Your task to perform on an android device: Open the stopwatch Image 0: 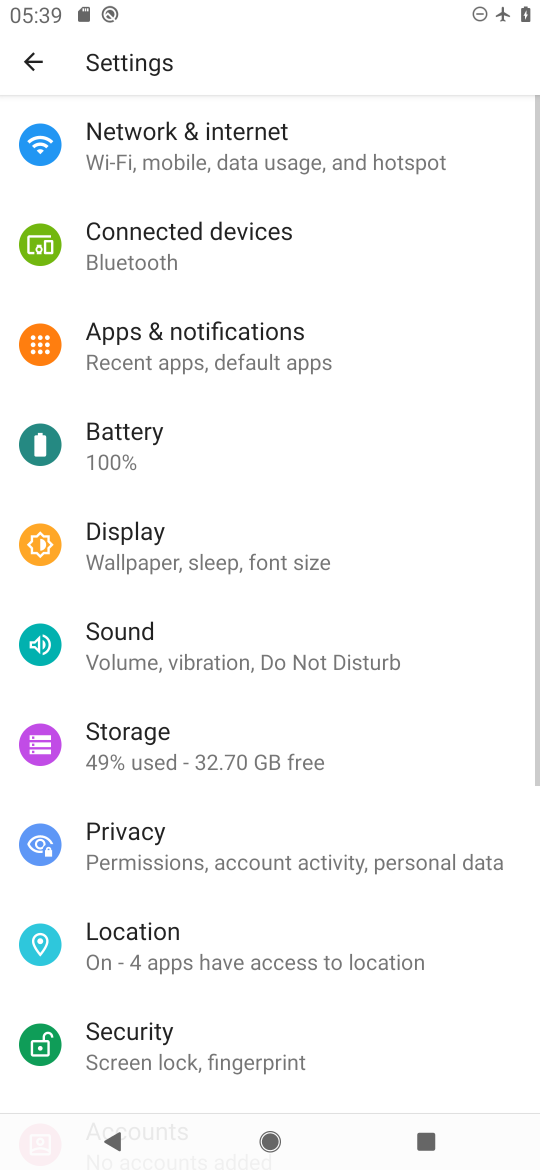
Step 0: press home button
Your task to perform on an android device: Open the stopwatch Image 1: 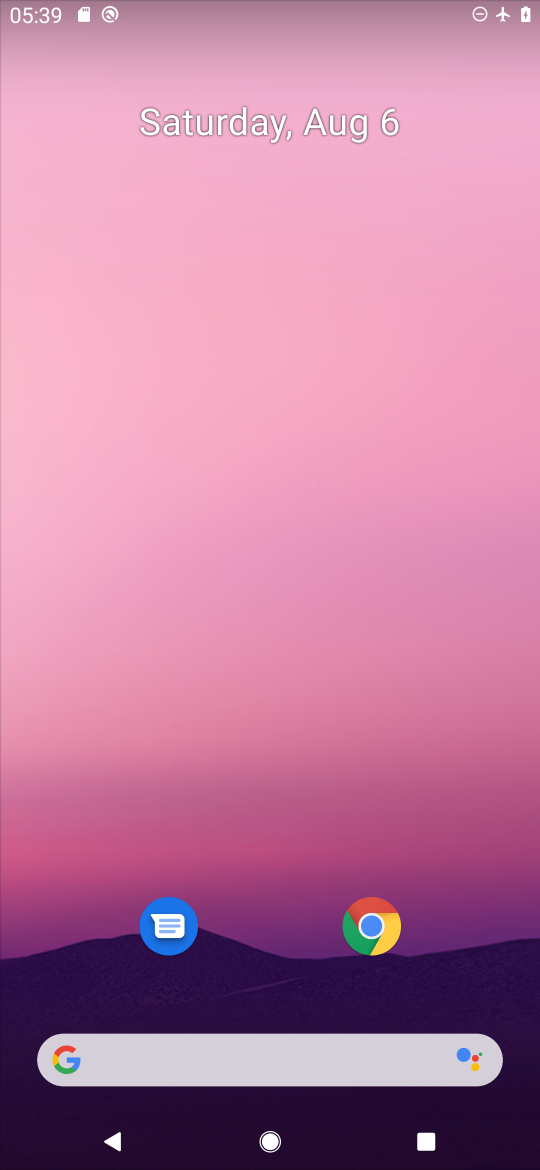
Step 1: drag from (280, 901) to (232, 228)
Your task to perform on an android device: Open the stopwatch Image 2: 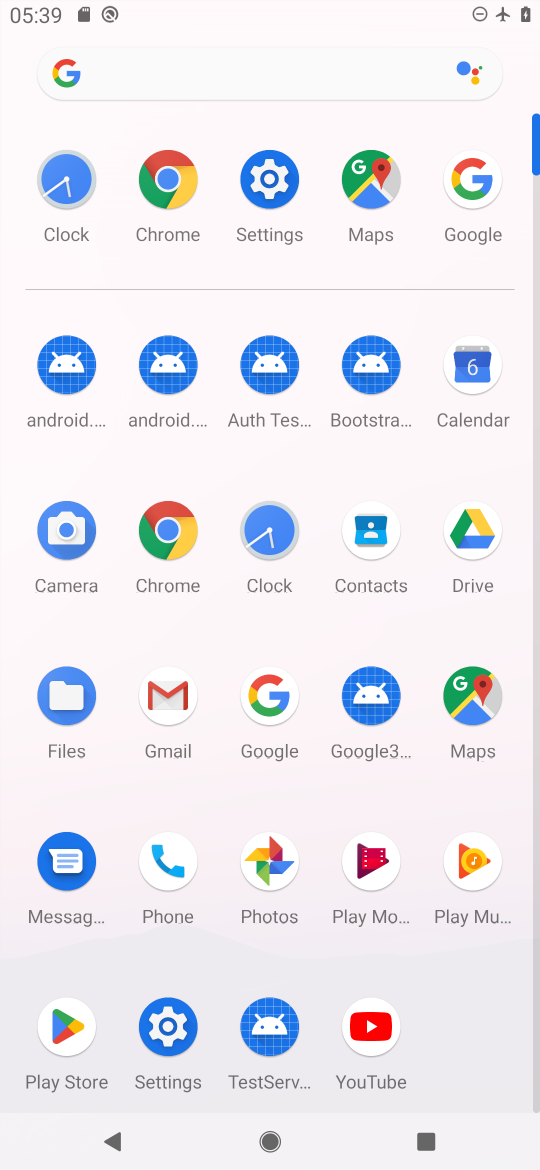
Step 2: click (254, 550)
Your task to perform on an android device: Open the stopwatch Image 3: 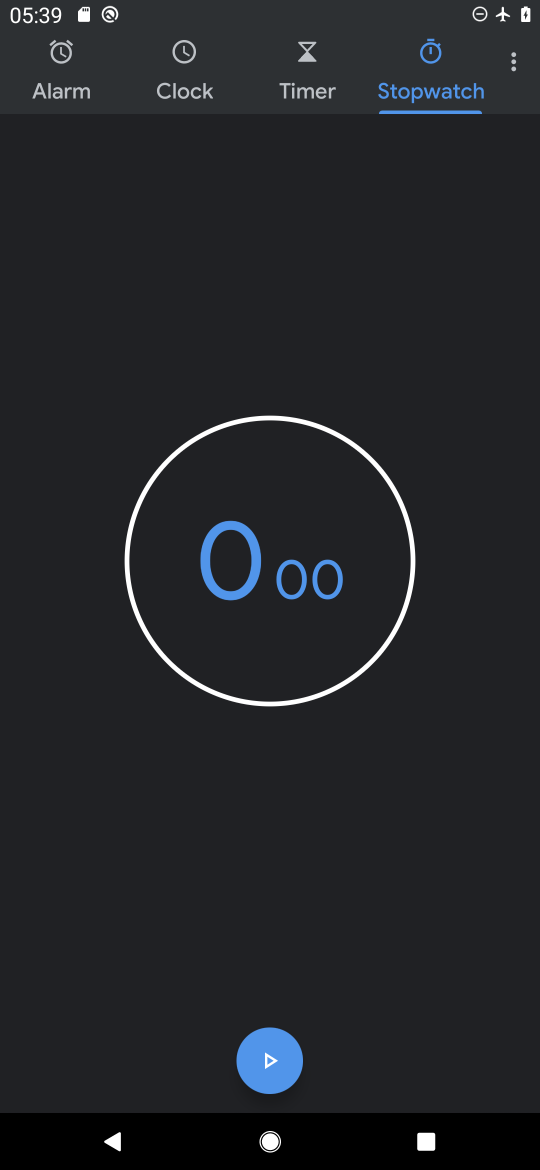
Step 3: task complete